Your task to perform on an android device: check out phone information Image 0: 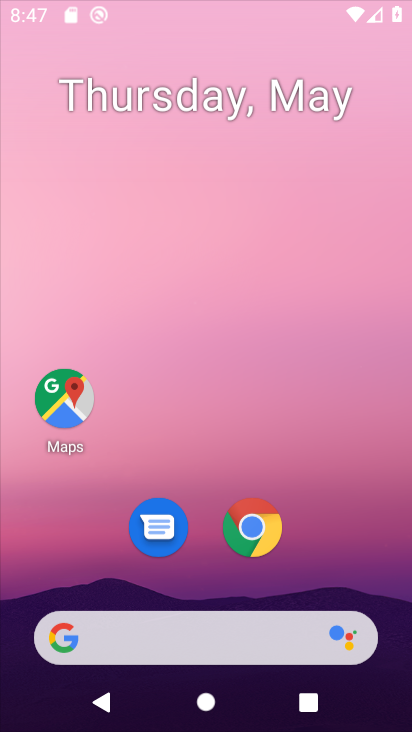
Step 0: click (200, 0)
Your task to perform on an android device: check out phone information Image 1: 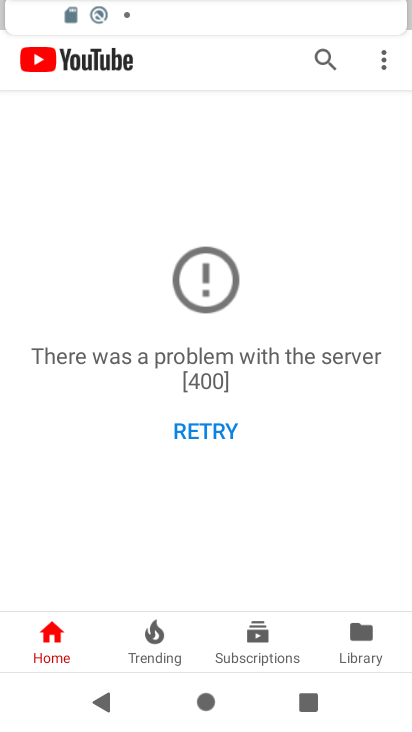
Step 1: press home button
Your task to perform on an android device: check out phone information Image 2: 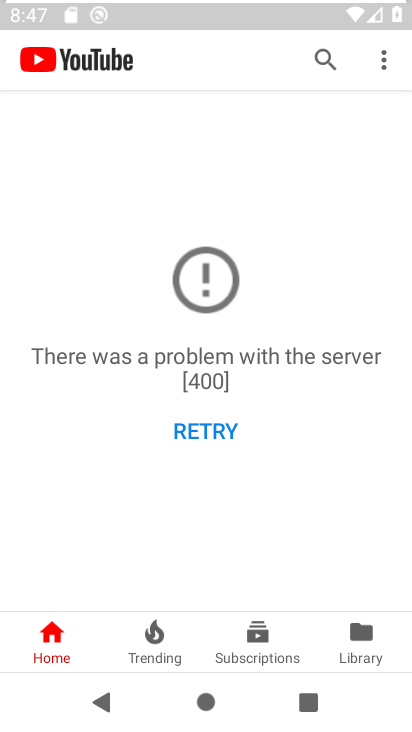
Step 2: drag from (200, 0) to (399, 491)
Your task to perform on an android device: check out phone information Image 3: 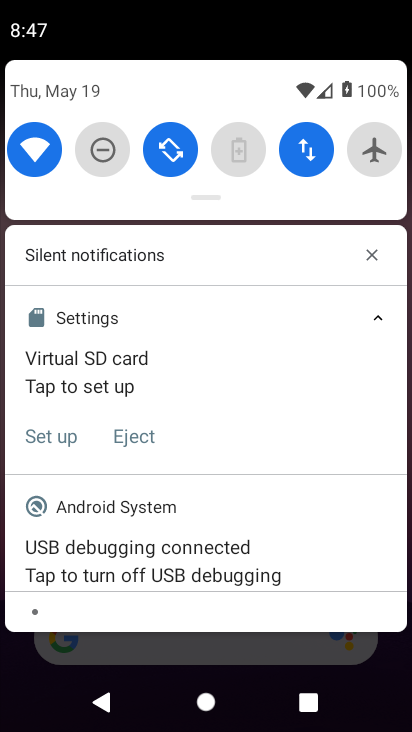
Step 3: drag from (312, 571) to (263, 430)
Your task to perform on an android device: check out phone information Image 4: 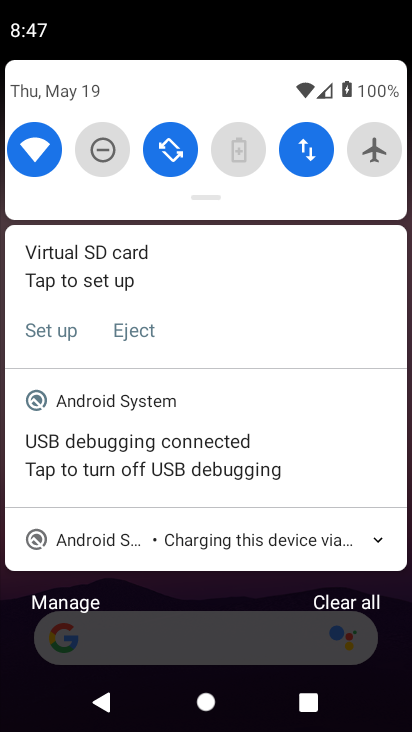
Step 4: press home button
Your task to perform on an android device: check out phone information Image 5: 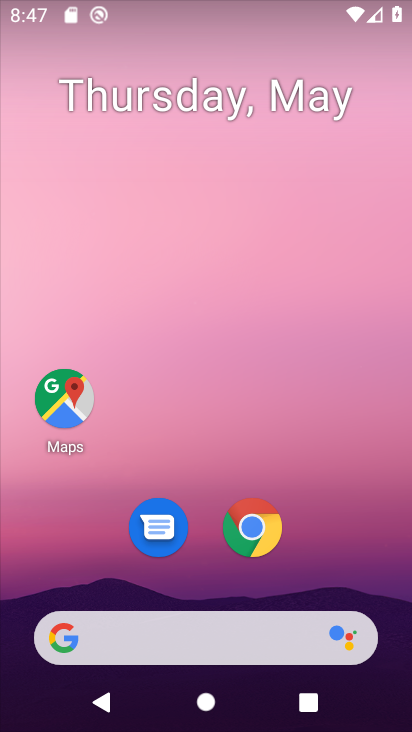
Step 5: drag from (245, 569) to (121, 76)
Your task to perform on an android device: check out phone information Image 6: 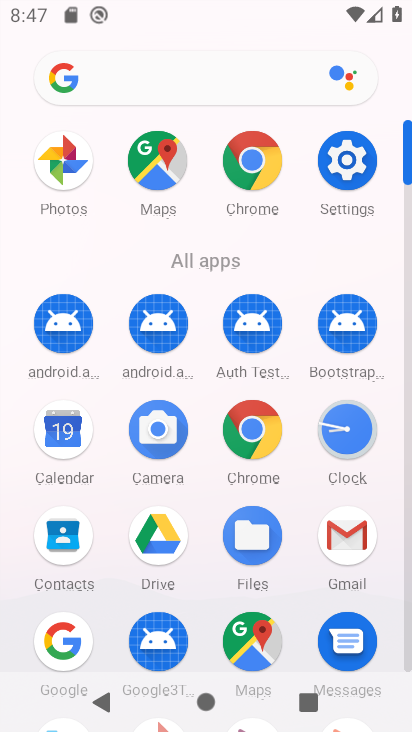
Step 6: click (341, 170)
Your task to perform on an android device: check out phone information Image 7: 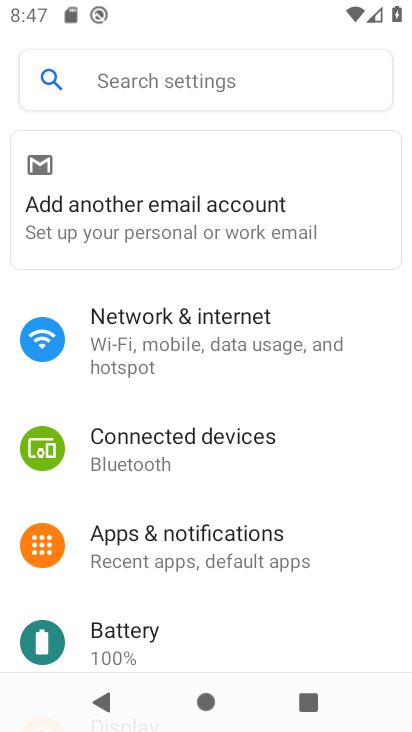
Step 7: drag from (194, 541) to (204, 0)
Your task to perform on an android device: check out phone information Image 8: 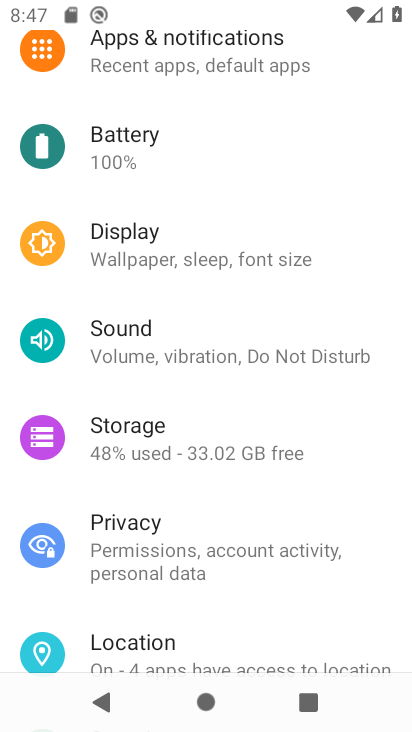
Step 8: drag from (218, 601) to (184, 70)
Your task to perform on an android device: check out phone information Image 9: 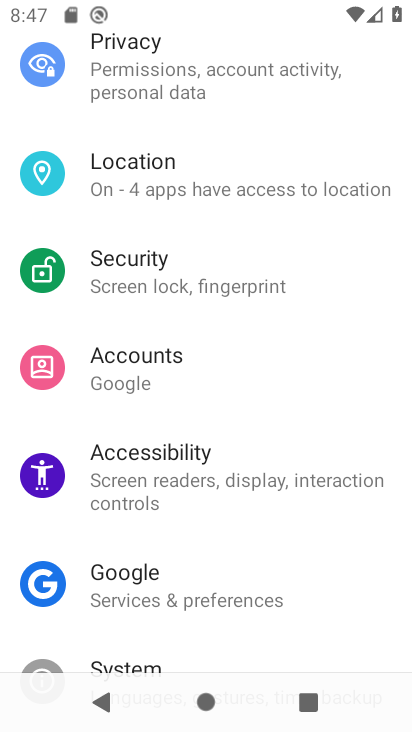
Step 9: drag from (199, 322) to (199, 68)
Your task to perform on an android device: check out phone information Image 10: 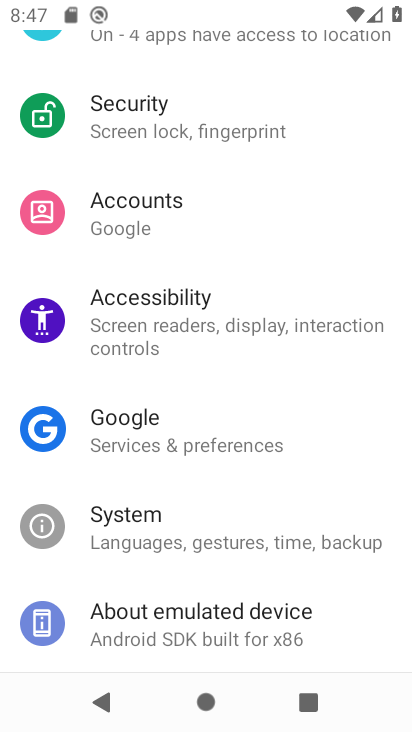
Step 10: drag from (186, 563) to (152, 30)
Your task to perform on an android device: check out phone information Image 11: 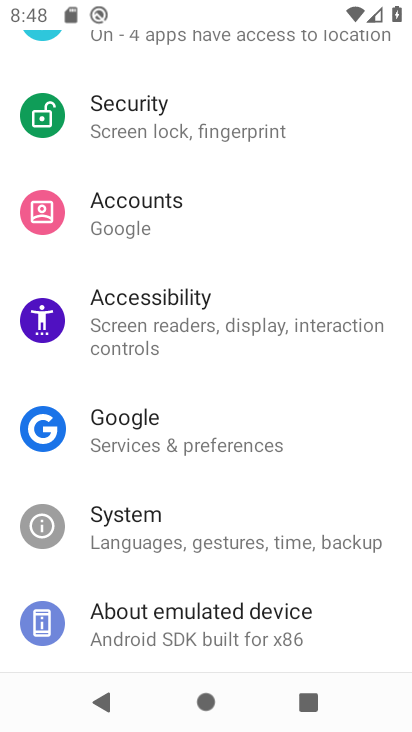
Step 11: click (205, 629)
Your task to perform on an android device: check out phone information Image 12: 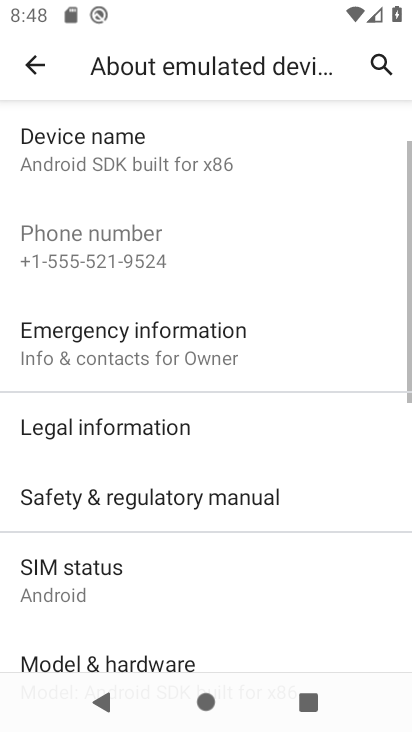
Step 12: task complete